Your task to perform on an android device: check data usage Image 0: 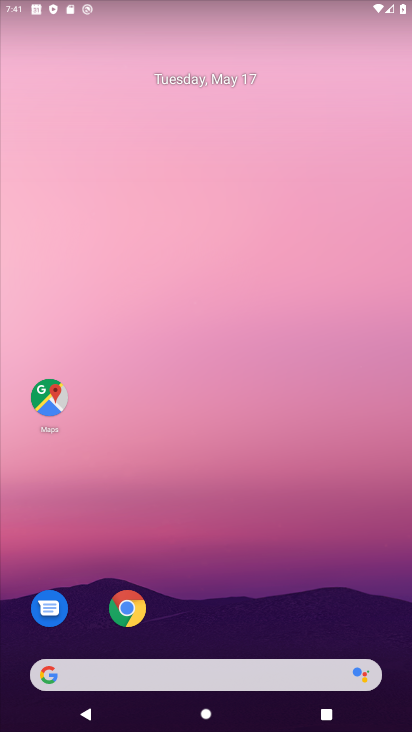
Step 0: drag from (234, 632) to (380, 185)
Your task to perform on an android device: check data usage Image 1: 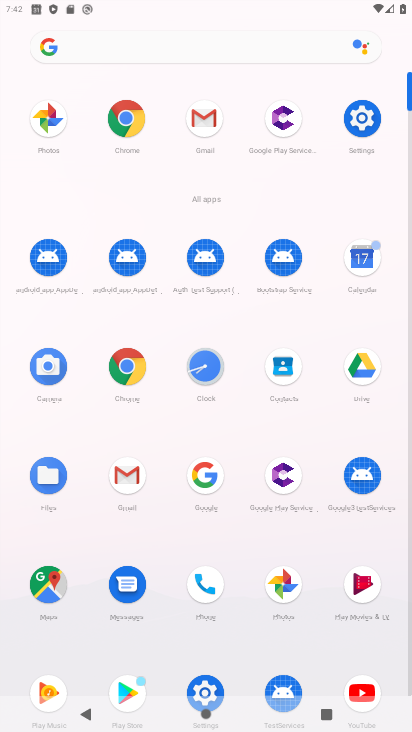
Step 1: click (358, 115)
Your task to perform on an android device: check data usage Image 2: 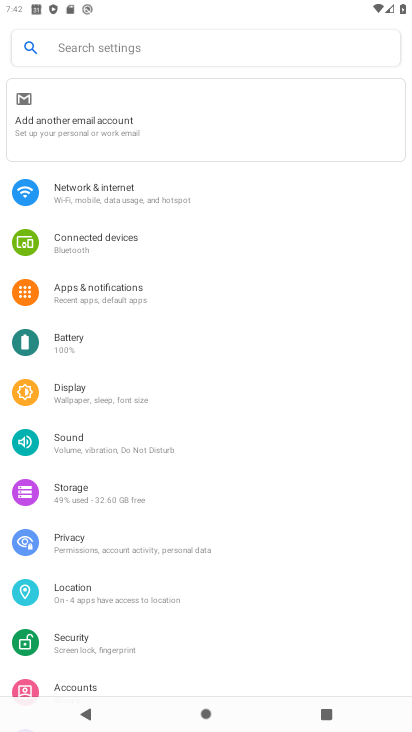
Step 2: click (170, 201)
Your task to perform on an android device: check data usage Image 3: 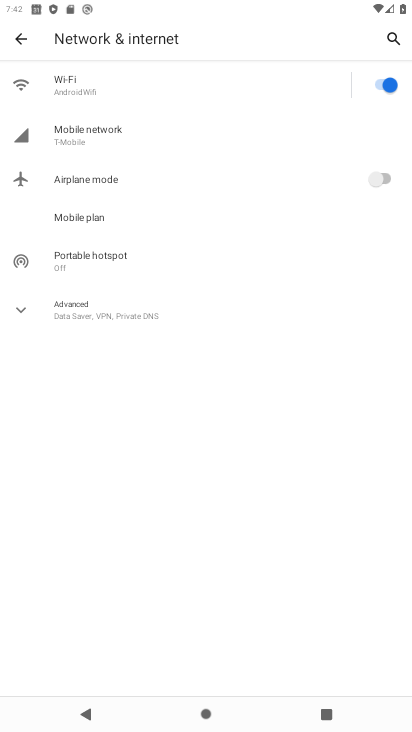
Step 3: click (99, 136)
Your task to perform on an android device: check data usage Image 4: 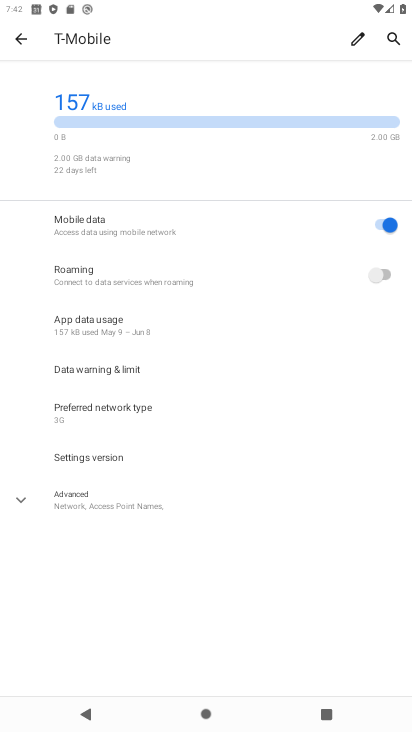
Step 4: click (98, 336)
Your task to perform on an android device: check data usage Image 5: 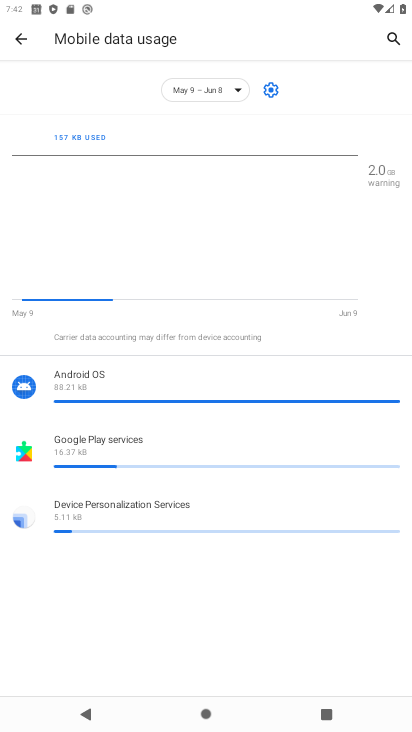
Step 5: task complete